Your task to perform on an android device: Do I have any events this weekend? Image 0: 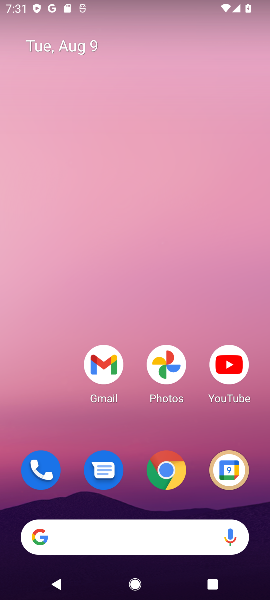
Step 0: click (235, 466)
Your task to perform on an android device: Do I have any events this weekend? Image 1: 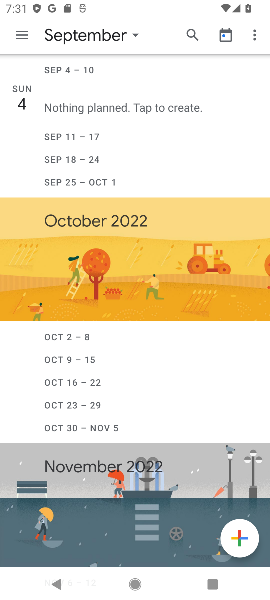
Step 1: click (26, 25)
Your task to perform on an android device: Do I have any events this weekend? Image 2: 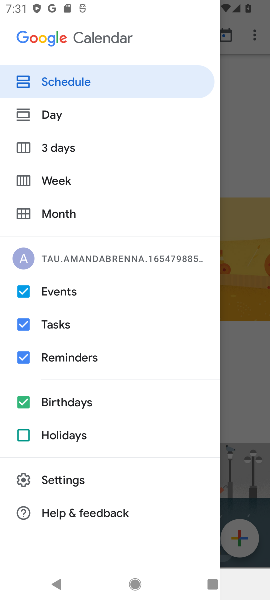
Step 2: click (87, 86)
Your task to perform on an android device: Do I have any events this weekend? Image 3: 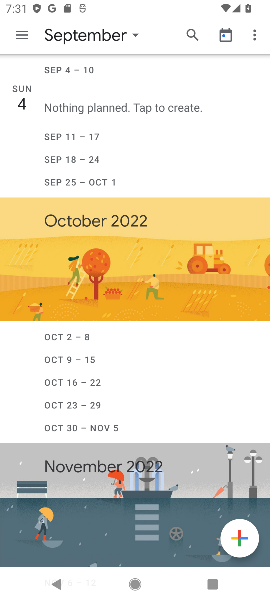
Step 3: click (97, 27)
Your task to perform on an android device: Do I have any events this weekend? Image 4: 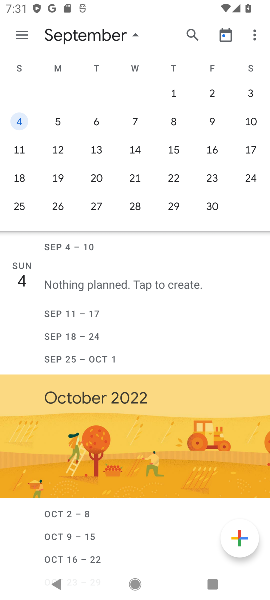
Step 4: drag from (50, 125) to (269, 153)
Your task to perform on an android device: Do I have any events this weekend? Image 5: 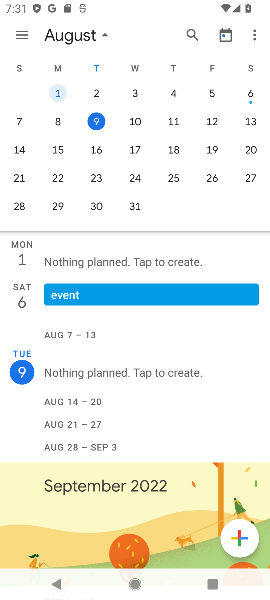
Step 5: click (248, 121)
Your task to perform on an android device: Do I have any events this weekend? Image 6: 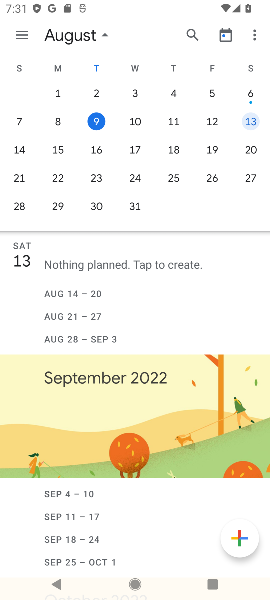
Step 6: task complete